Your task to perform on an android device: Open the web browser Image 0: 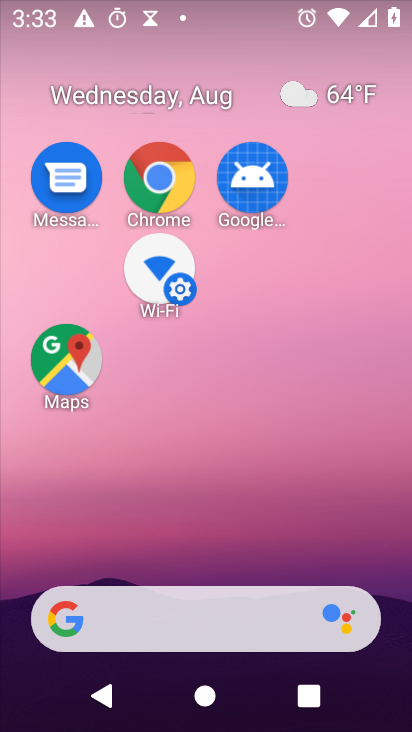
Step 0: press home button
Your task to perform on an android device: Open the web browser Image 1: 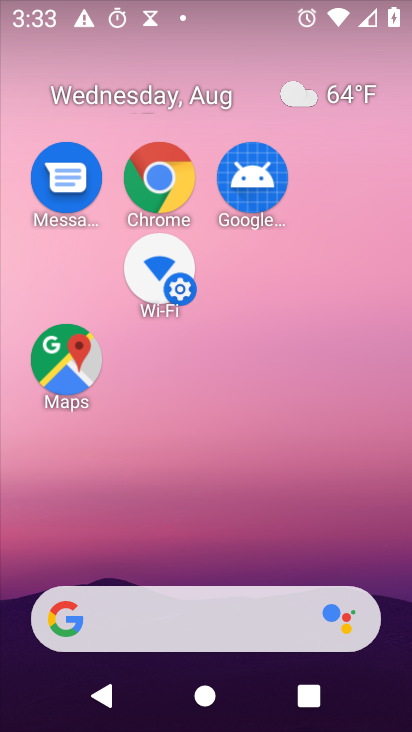
Step 1: click (75, 615)
Your task to perform on an android device: Open the web browser Image 2: 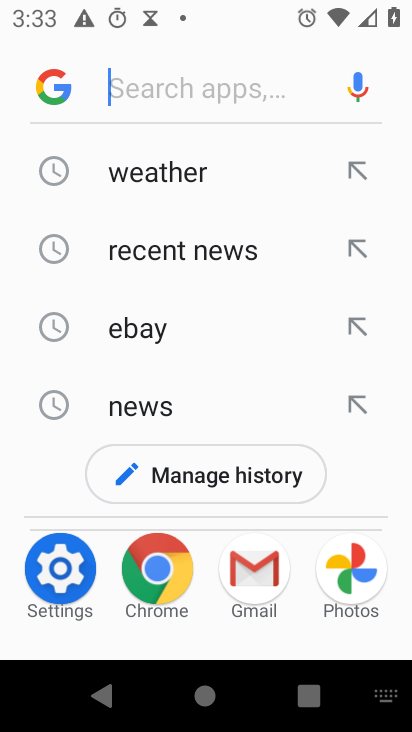
Step 2: task complete